Your task to perform on an android device: Open battery settings Image 0: 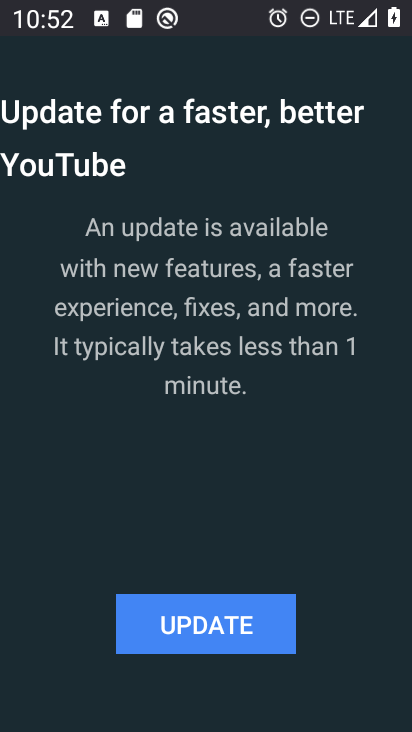
Step 0: press home button
Your task to perform on an android device: Open battery settings Image 1: 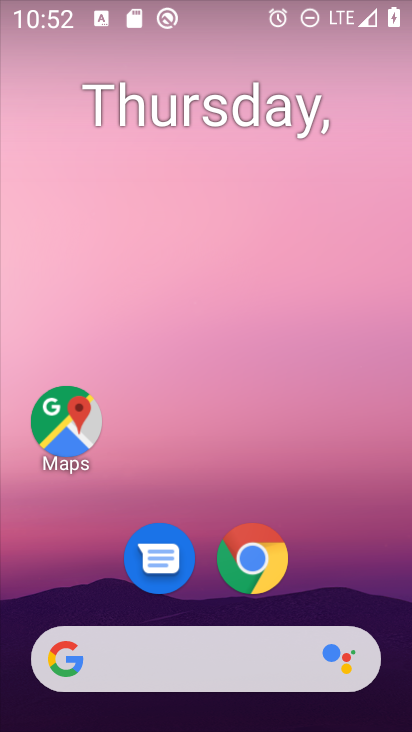
Step 1: drag from (386, 619) to (303, 101)
Your task to perform on an android device: Open battery settings Image 2: 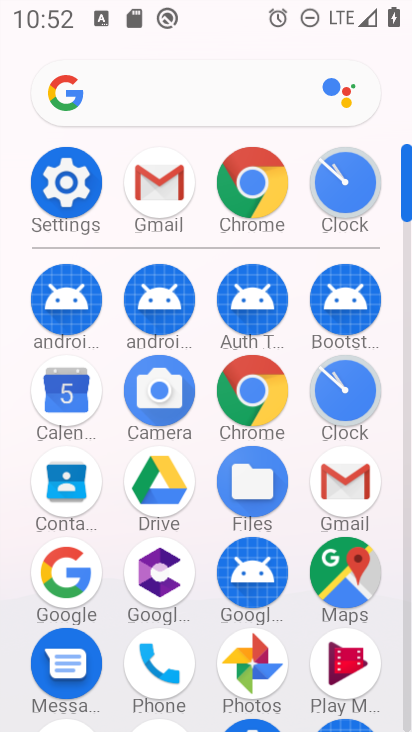
Step 2: click (407, 706)
Your task to perform on an android device: Open battery settings Image 3: 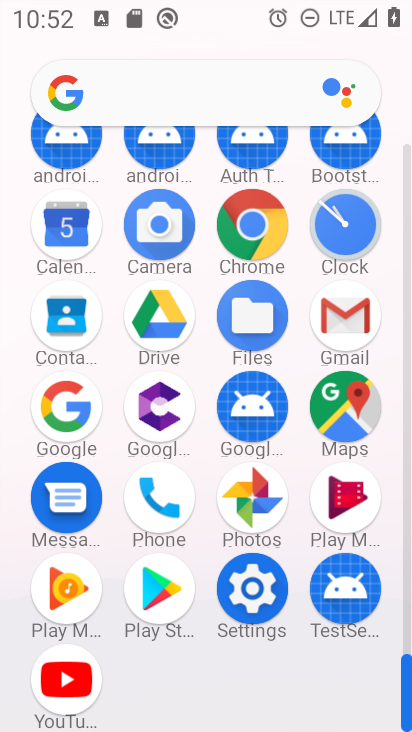
Step 3: click (252, 585)
Your task to perform on an android device: Open battery settings Image 4: 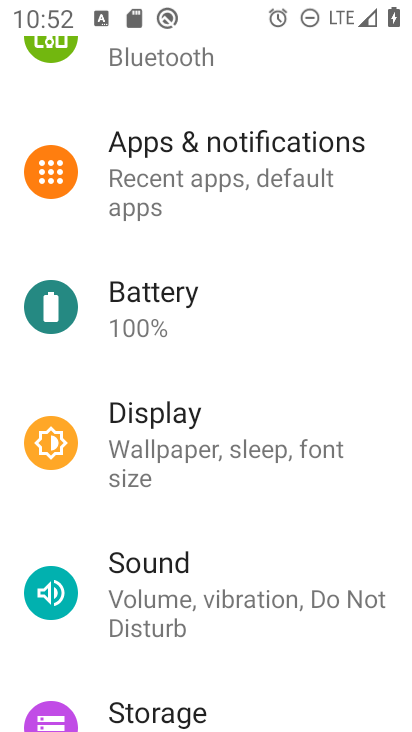
Step 4: click (137, 297)
Your task to perform on an android device: Open battery settings Image 5: 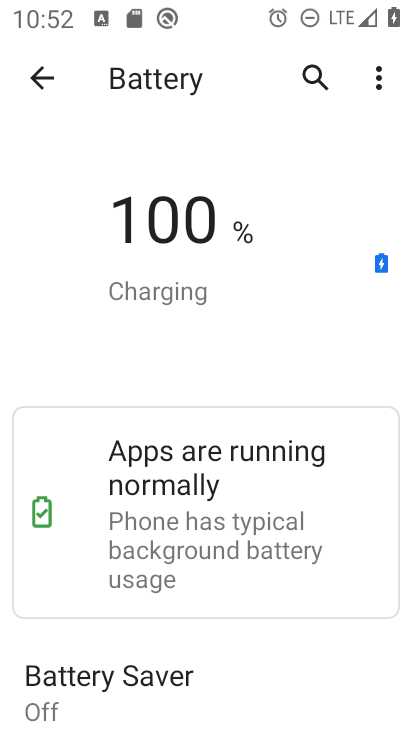
Step 5: task complete